Your task to perform on an android device: add a label to a message in the gmail app Image 0: 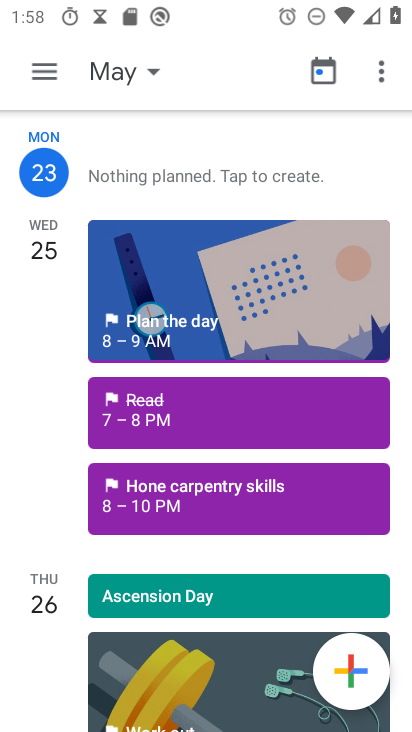
Step 0: press home button
Your task to perform on an android device: add a label to a message in the gmail app Image 1: 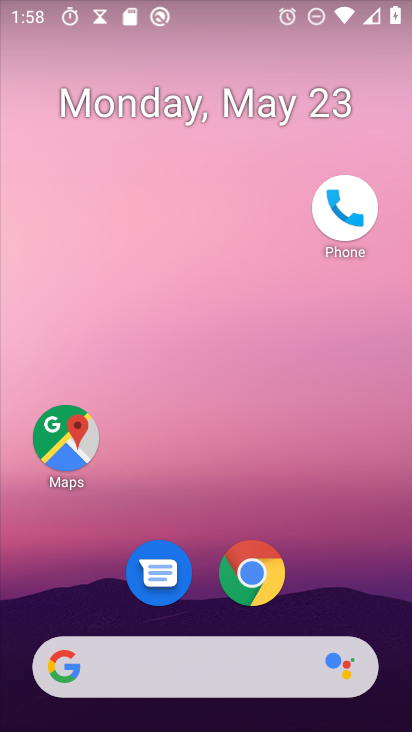
Step 1: drag from (186, 654) to (286, 110)
Your task to perform on an android device: add a label to a message in the gmail app Image 2: 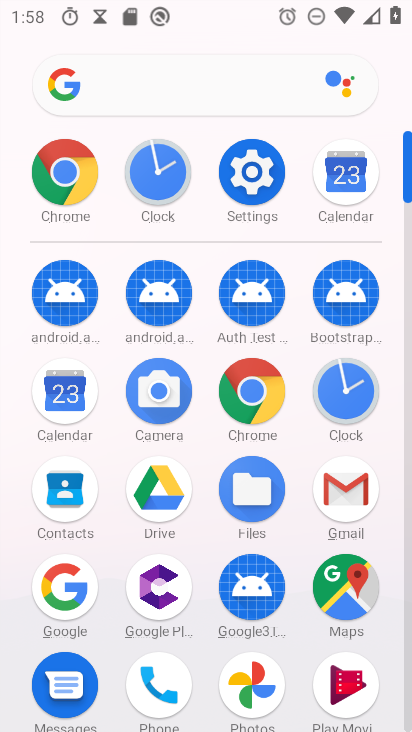
Step 2: click (346, 486)
Your task to perform on an android device: add a label to a message in the gmail app Image 3: 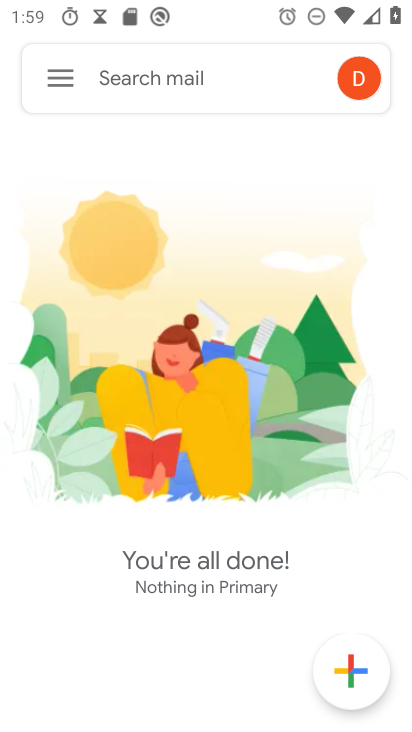
Step 3: task complete